Your task to perform on an android device: turn on location history Image 0: 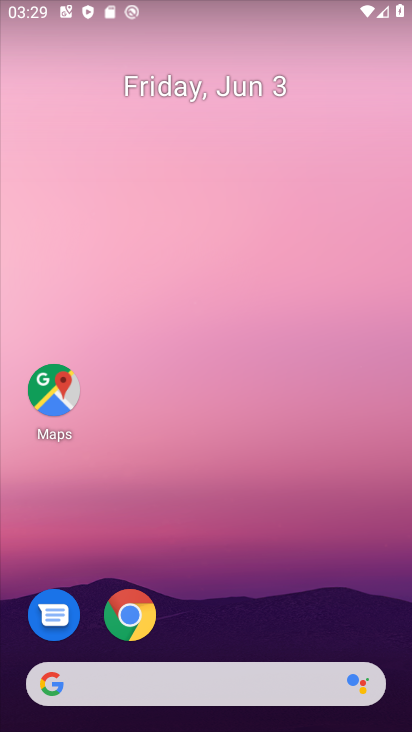
Step 0: click (42, 397)
Your task to perform on an android device: turn on location history Image 1: 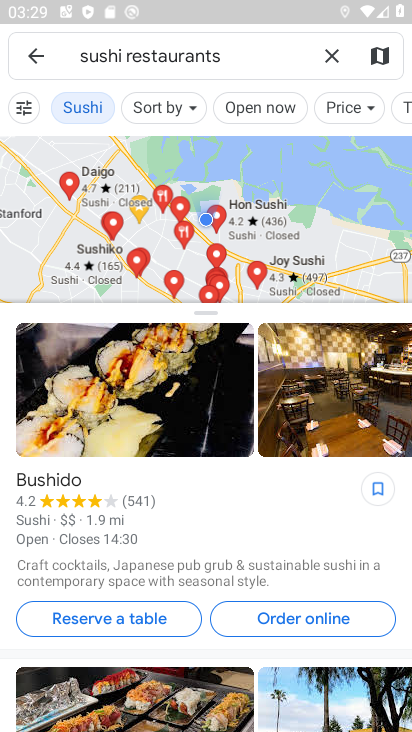
Step 1: click (24, 46)
Your task to perform on an android device: turn on location history Image 2: 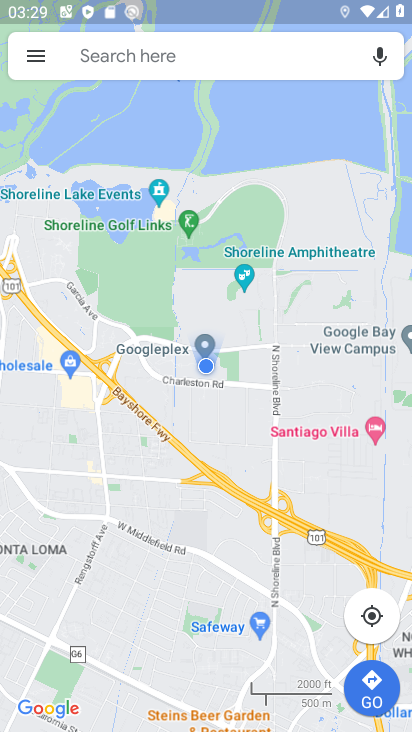
Step 2: click (27, 48)
Your task to perform on an android device: turn on location history Image 3: 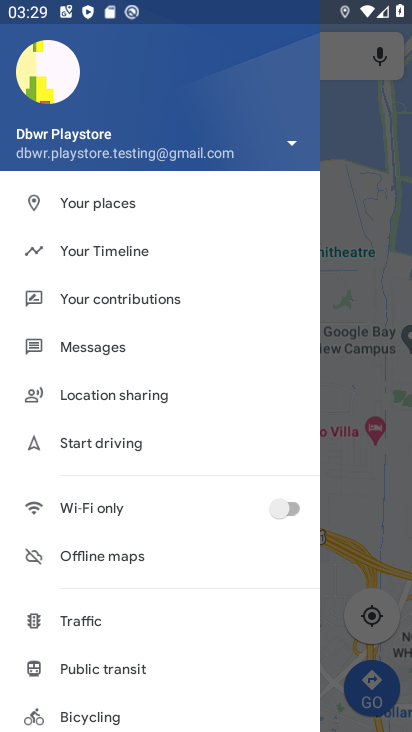
Step 3: click (82, 262)
Your task to perform on an android device: turn on location history Image 4: 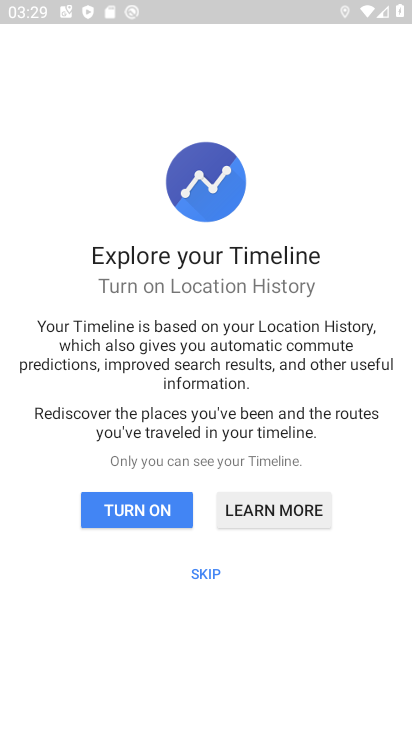
Step 4: click (173, 517)
Your task to perform on an android device: turn on location history Image 5: 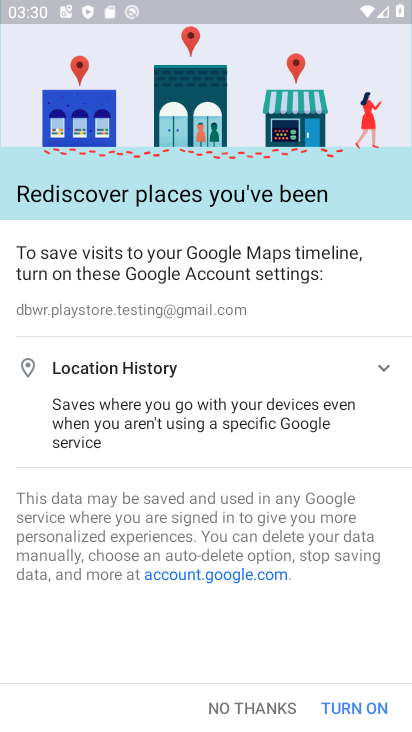
Step 5: click (367, 702)
Your task to perform on an android device: turn on location history Image 6: 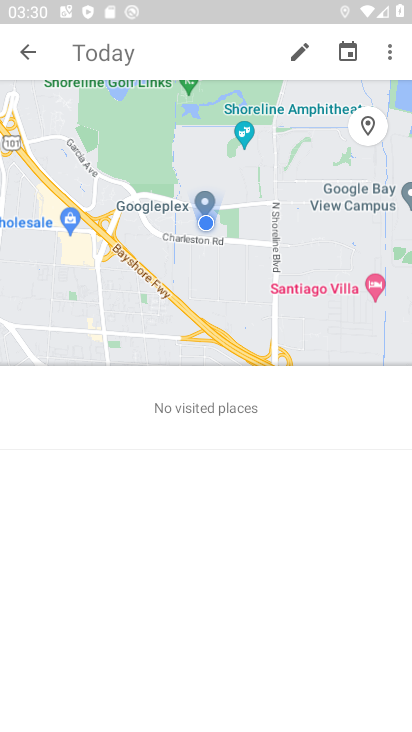
Step 6: task complete